Your task to perform on an android device: Open the map Image 0: 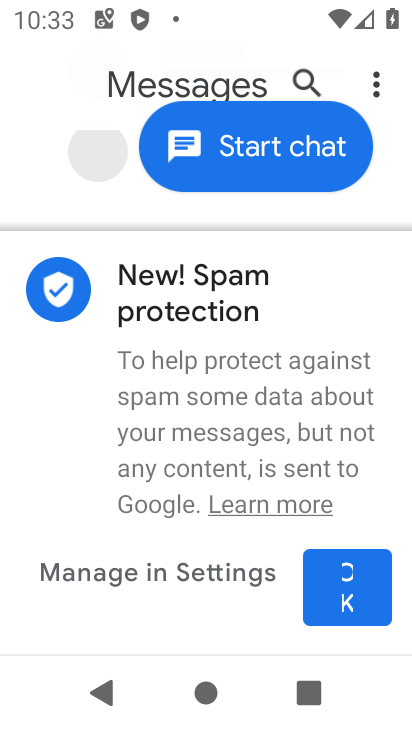
Step 0: press home button
Your task to perform on an android device: Open the map Image 1: 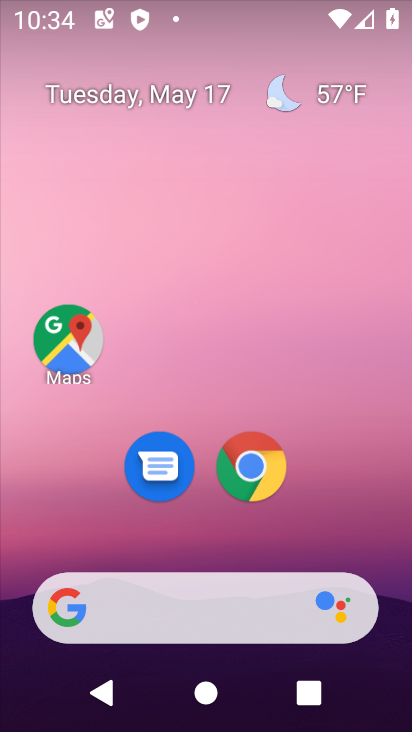
Step 1: click (57, 338)
Your task to perform on an android device: Open the map Image 2: 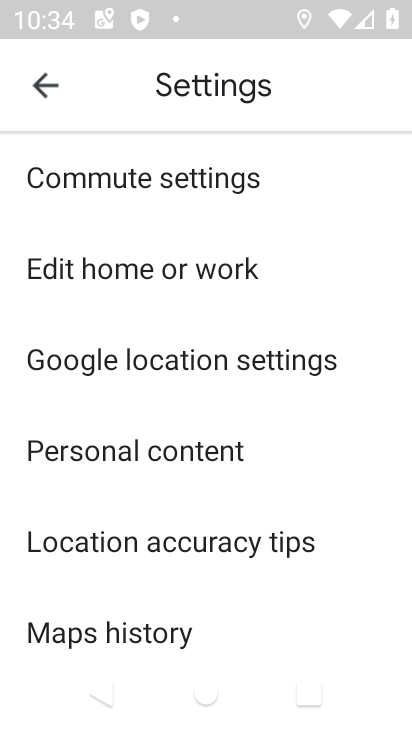
Step 2: task complete